Your task to perform on an android device: Open Reddit.com Image 0: 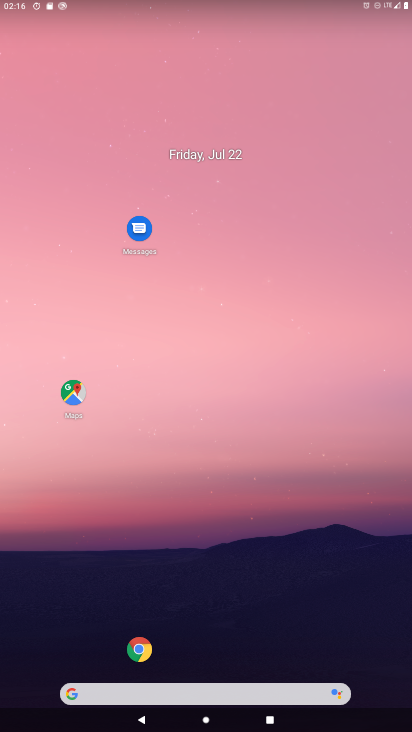
Step 0: click (106, 689)
Your task to perform on an android device: Open Reddit.com Image 1: 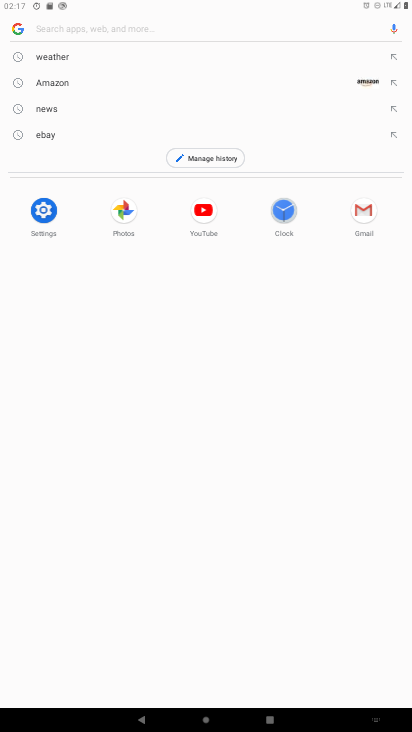
Step 1: type "Reddit.com"
Your task to perform on an android device: Open Reddit.com Image 2: 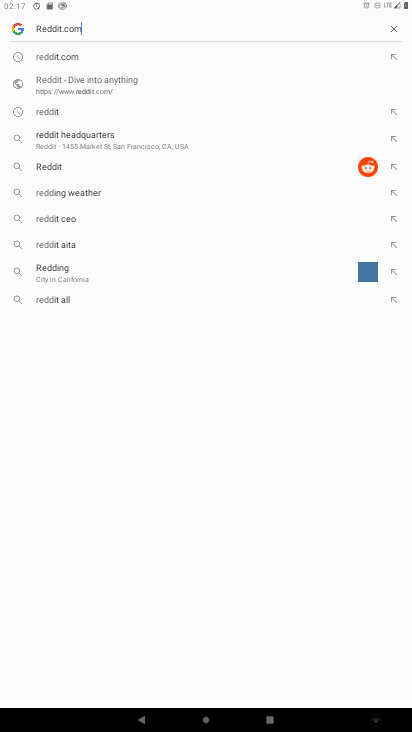
Step 2: type ""
Your task to perform on an android device: Open Reddit.com Image 3: 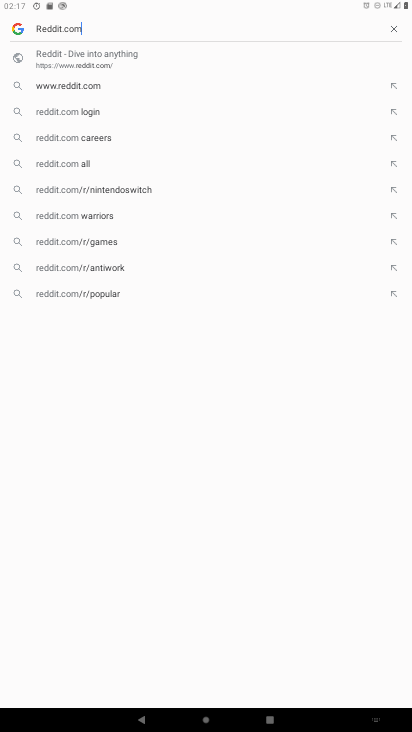
Step 3: task complete